Your task to perform on an android device: toggle location history Image 0: 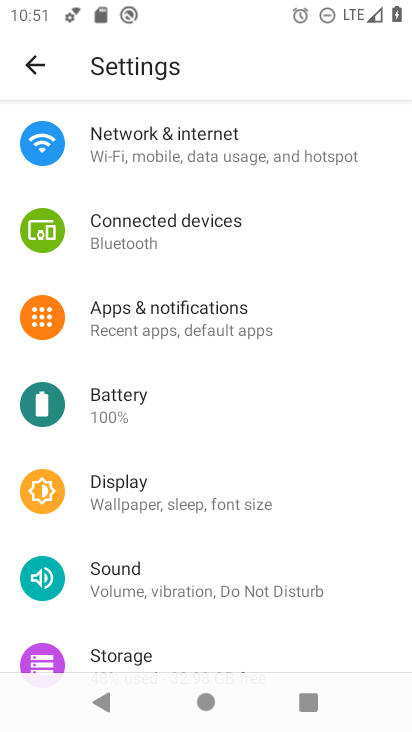
Step 0: drag from (247, 590) to (207, 189)
Your task to perform on an android device: toggle location history Image 1: 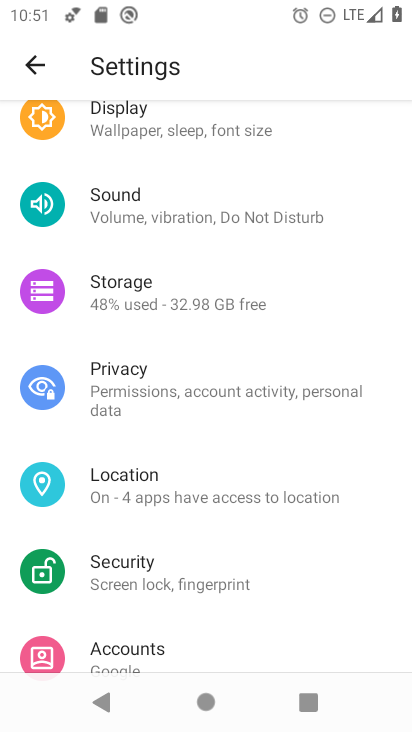
Step 1: click (230, 491)
Your task to perform on an android device: toggle location history Image 2: 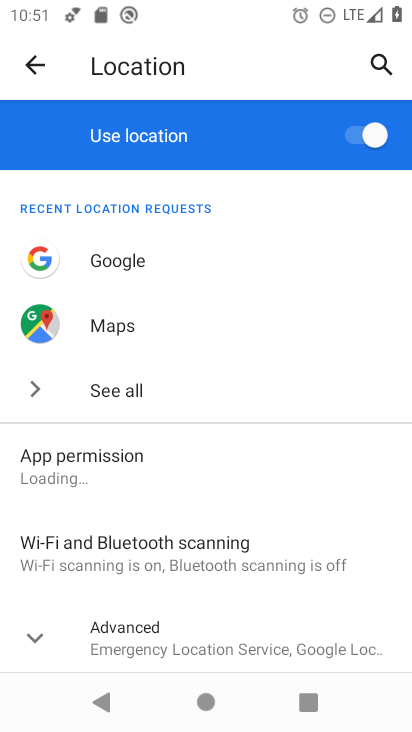
Step 2: click (158, 552)
Your task to perform on an android device: toggle location history Image 3: 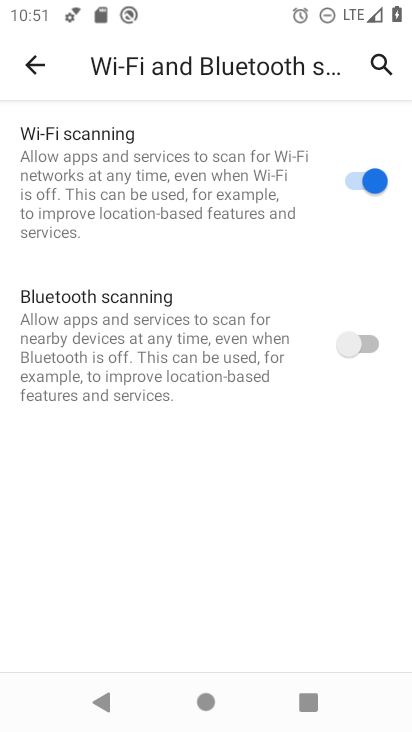
Step 3: click (28, 59)
Your task to perform on an android device: toggle location history Image 4: 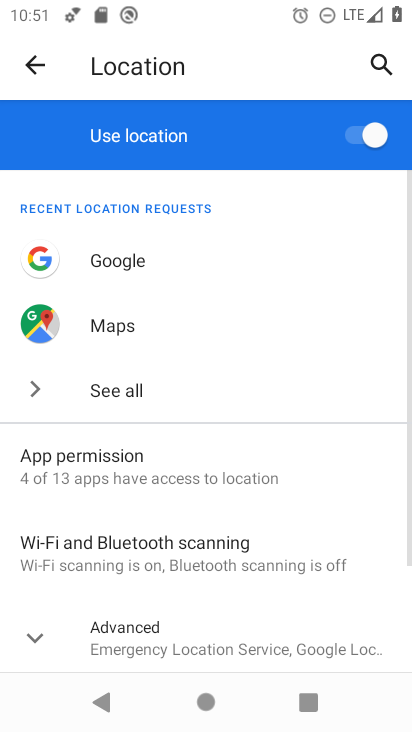
Step 4: click (183, 640)
Your task to perform on an android device: toggle location history Image 5: 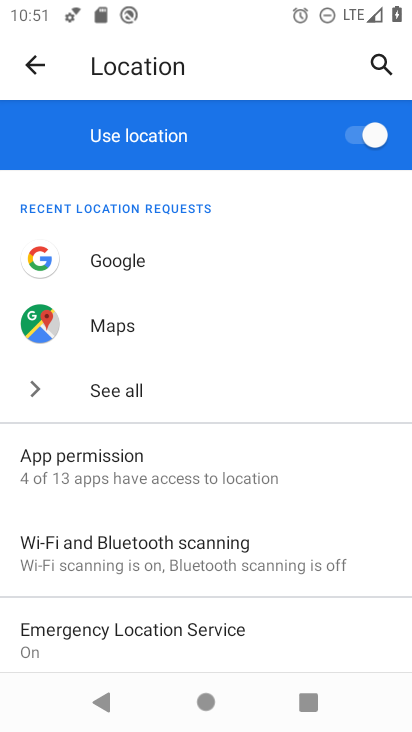
Step 5: drag from (281, 591) to (286, 6)
Your task to perform on an android device: toggle location history Image 6: 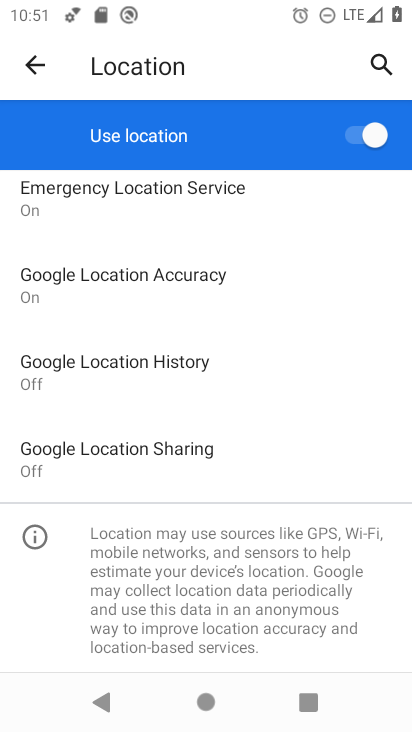
Step 6: click (139, 374)
Your task to perform on an android device: toggle location history Image 7: 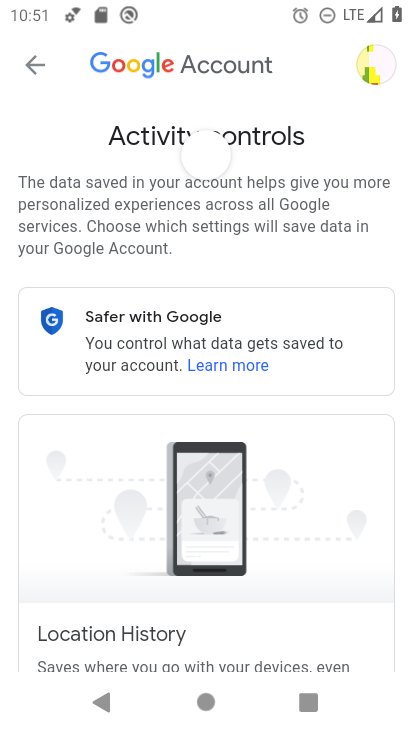
Step 7: drag from (248, 531) to (199, 218)
Your task to perform on an android device: toggle location history Image 8: 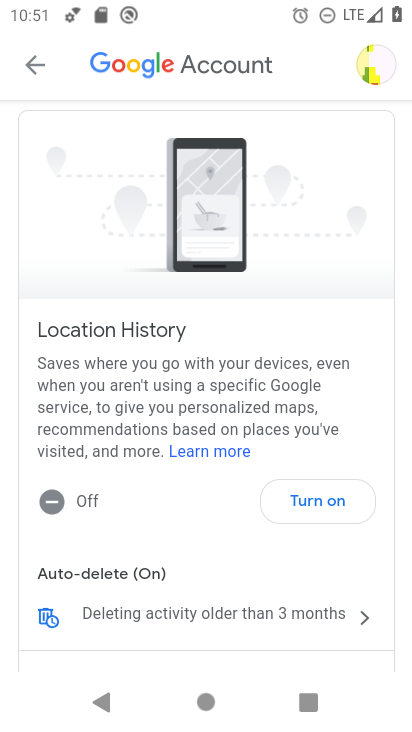
Step 8: click (315, 502)
Your task to perform on an android device: toggle location history Image 9: 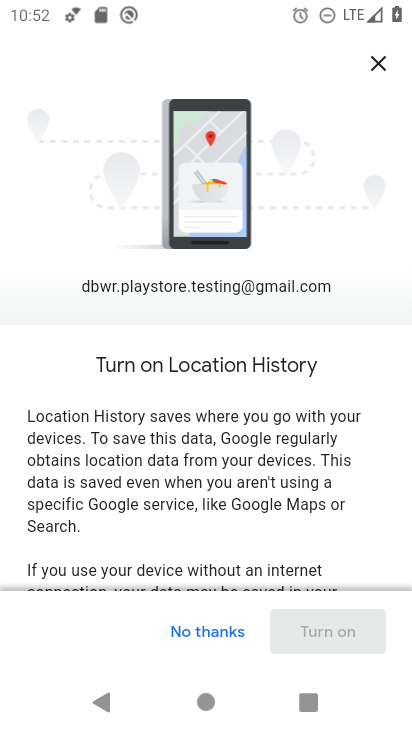
Step 9: drag from (288, 568) to (204, 33)
Your task to perform on an android device: toggle location history Image 10: 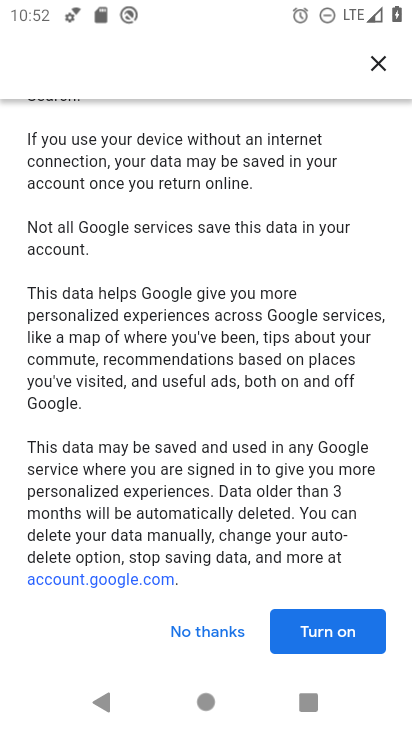
Step 10: click (293, 574)
Your task to perform on an android device: toggle location history Image 11: 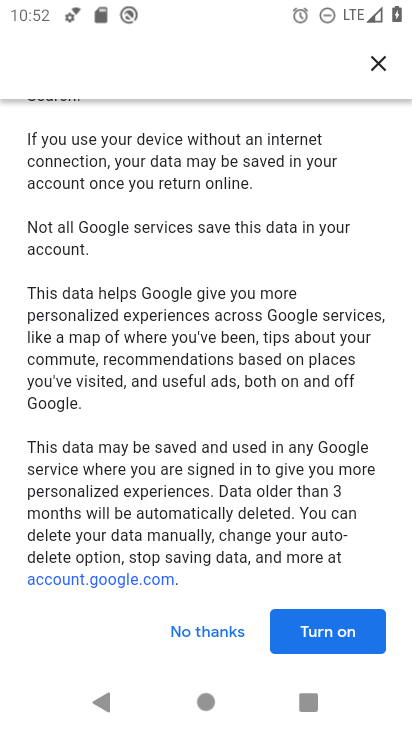
Step 11: click (337, 638)
Your task to perform on an android device: toggle location history Image 12: 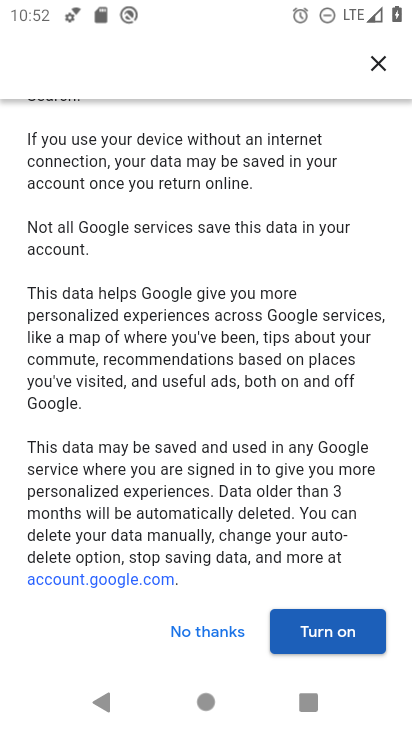
Step 12: click (321, 642)
Your task to perform on an android device: toggle location history Image 13: 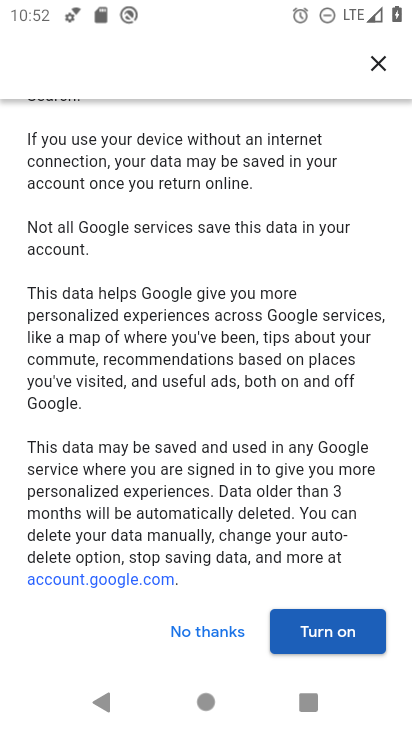
Step 13: task complete